Your task to perform on an android device: Go to battery settings Image 0: 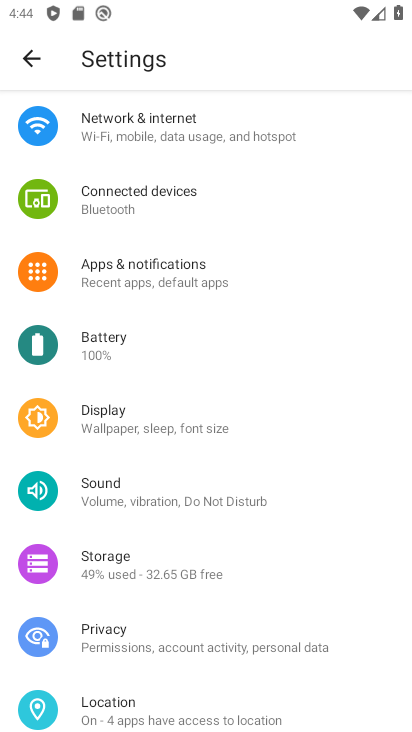
Step 0: click (120, 343)
Your task to perform on an android device: Go to battery settings Image 1: 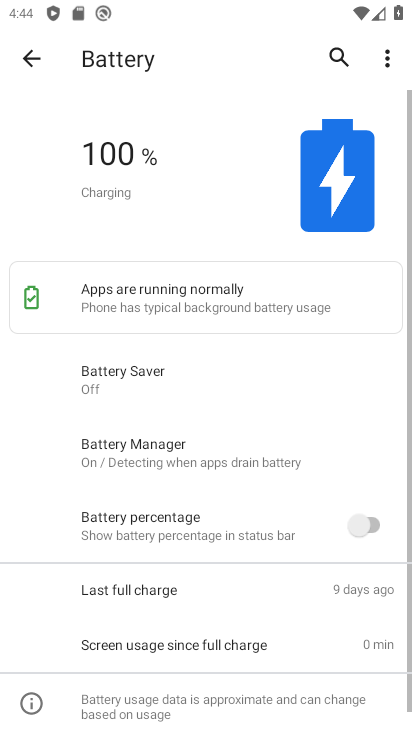
Step 1: task complete